Your task to perform on an android device: empty trash in google photos Image 0: 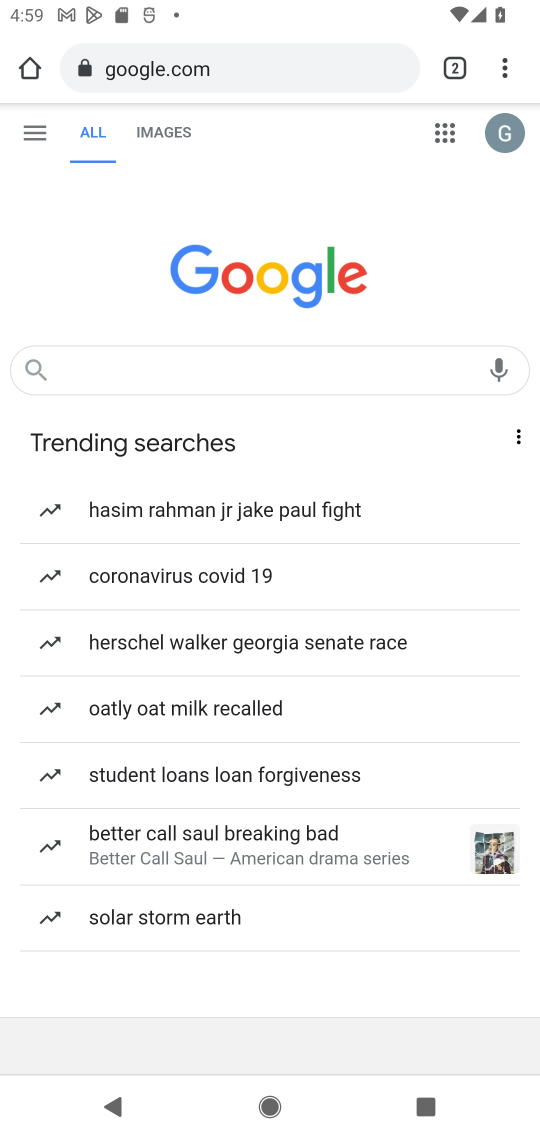
Step 0: press home button
Your task to perform on an android device: empty trash in google photos Image 1: 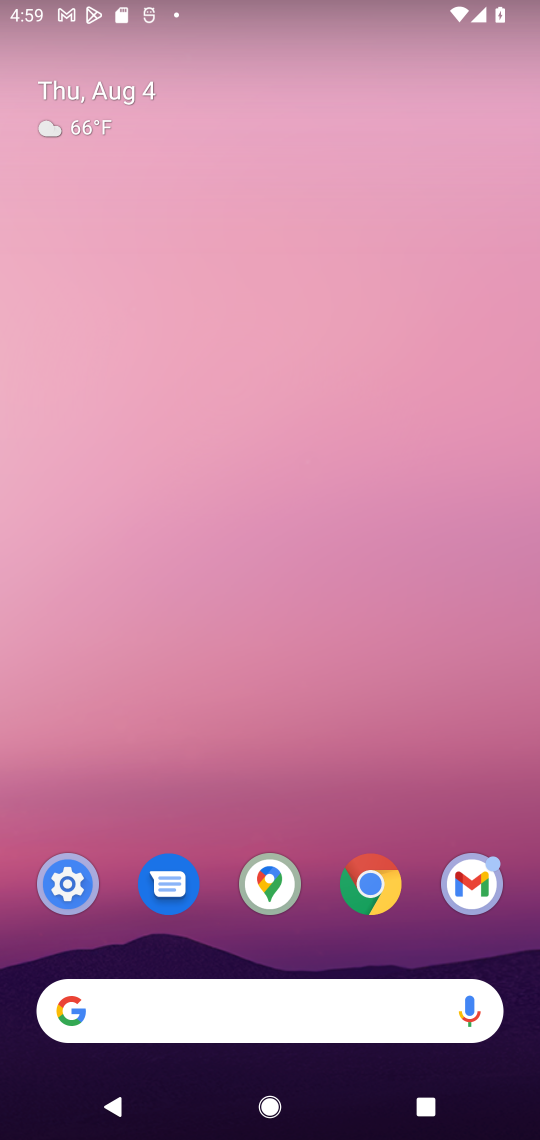
Step 1: drag from (318, 952) to (297, 74)
Your task to perform on an android device: empty trash in google photos Image 2: 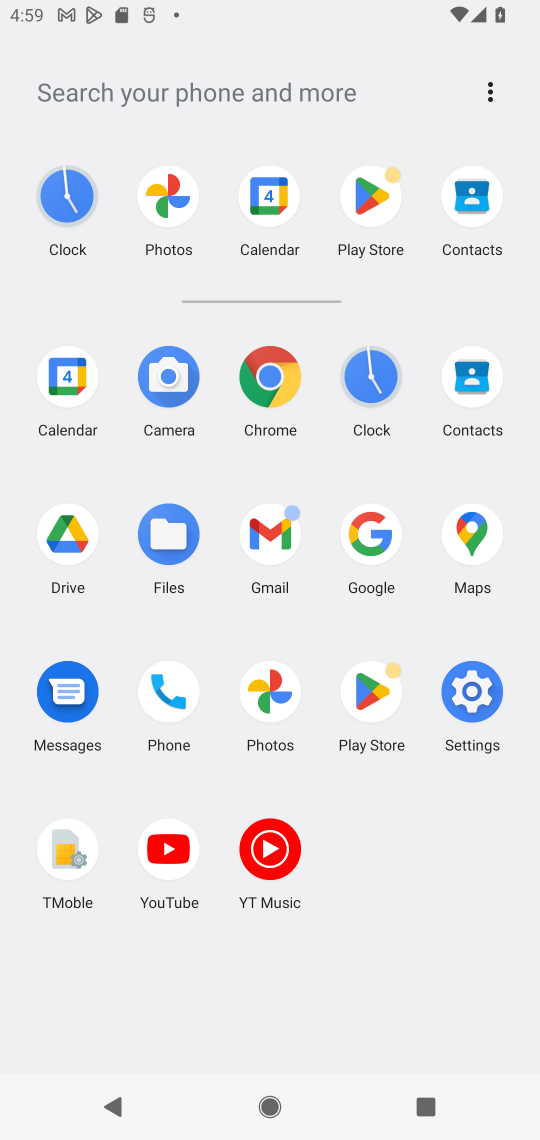
Step 2: click (149, 189)
Your task to perform on an android device: empty trash in google photos Image 3: 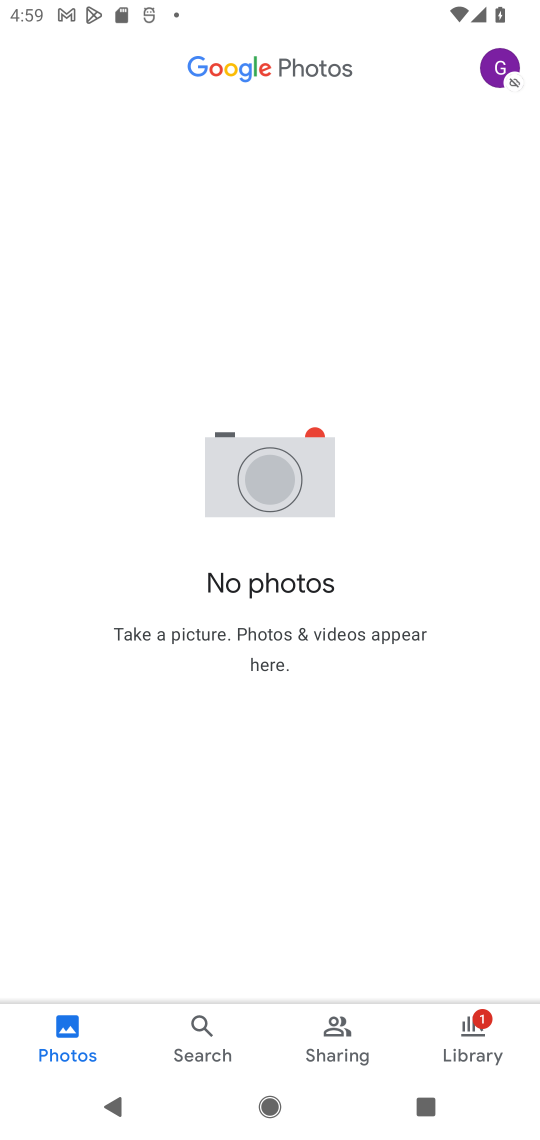
Step 3: task complete